Your task to perform on an android device: Open maps Image 0: 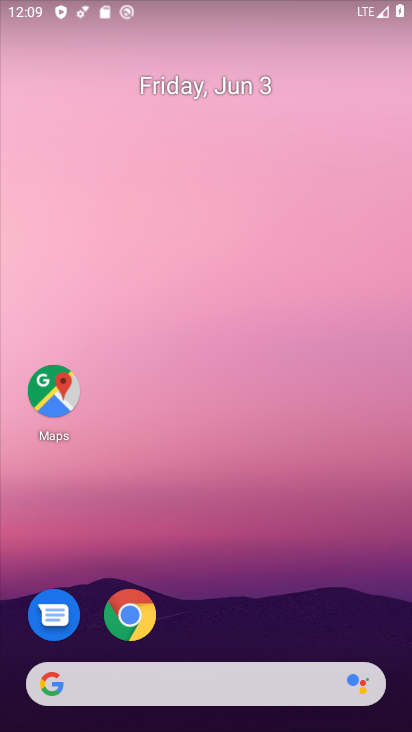
Step 0: click (50, 385)
Your task to perform on an android device: Open maps Image 1: 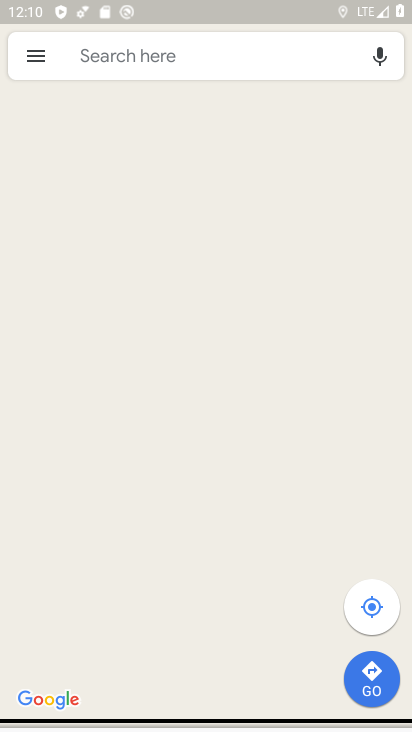
Step 1: task complete